Your task to perform on an android device: Open calendar and show me the first week of next month Image 0: 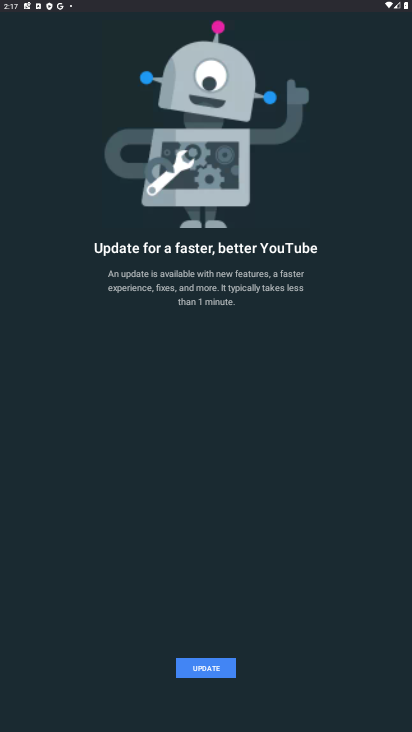
Step 0: press home button
Your task to perform on an android device: Open calendar and show me the first week of next month Image 1: 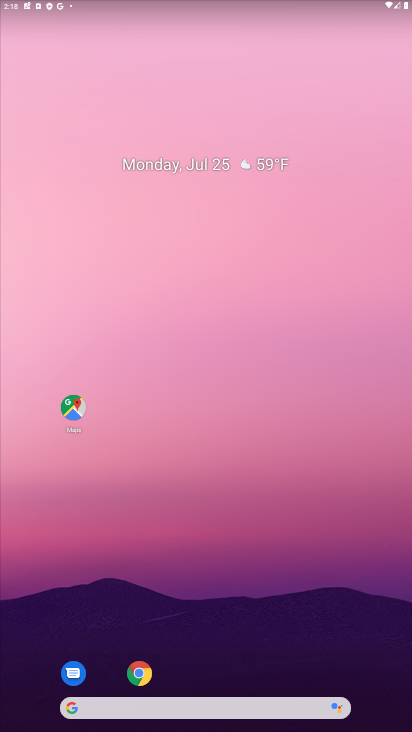
Step 1: click (172, 170)
Your task to perform on an android device: Open calendar and show me the first week of next month Image 2: 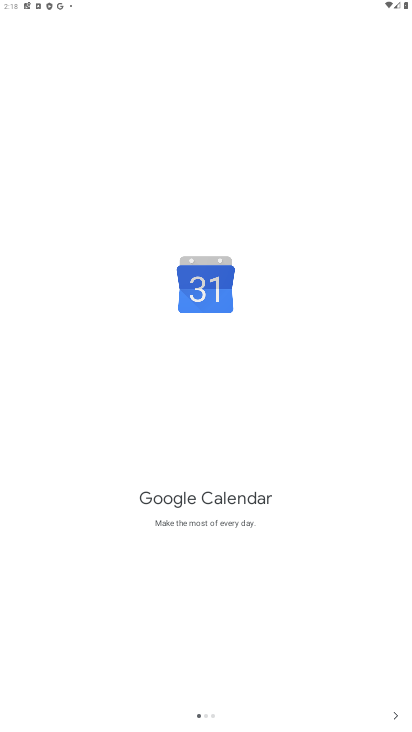
Step 2: click (394, 716)
Your task to perform on an android device: Open calendar and show me the first week of next month Image 3: 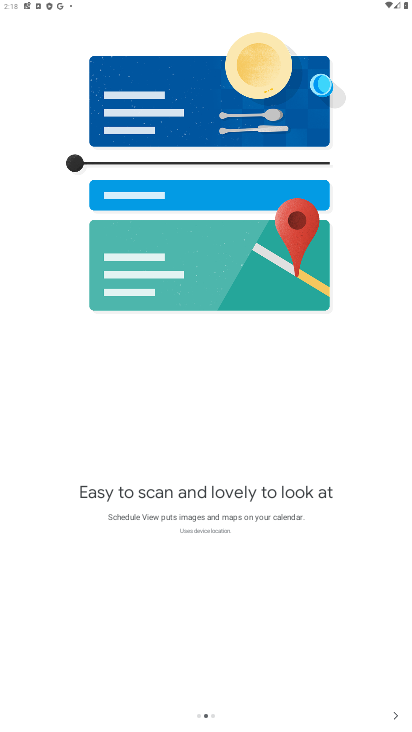
Step 3: click (394, 716)
Your task to perform on an android device: Open calendar and show me the first week of next month Image 4: 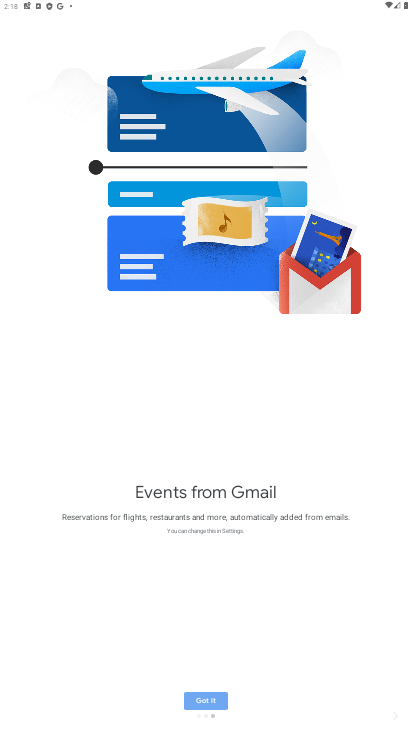
Step 4: click (394, 716)
Your task to perform on an android device: Open calendar and show me the first week of next month Image 5: 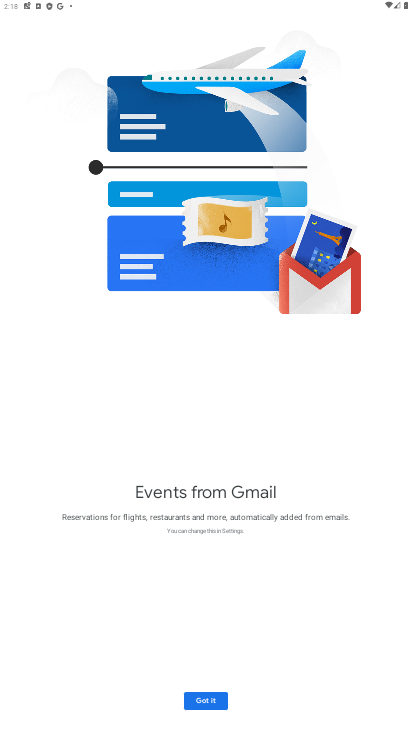
Step 5: click (191, 708)
Your task to perform on an android device: Open calendar and show me the first week of next month Image 6: 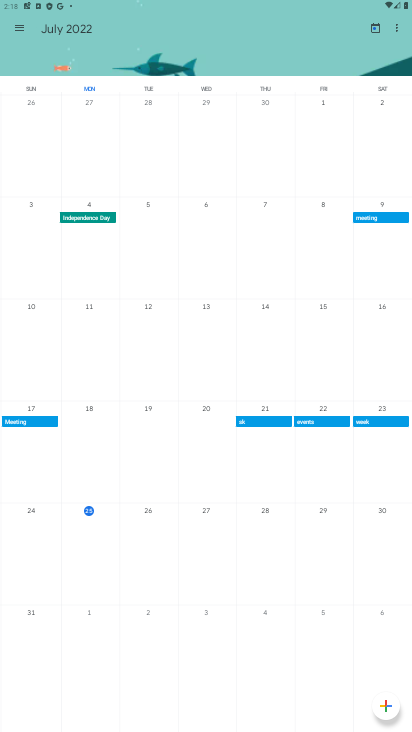
Step 6: click (79, 30)
Your task to perform on an android device: Open calendar and show me the first week of next month Image 7: 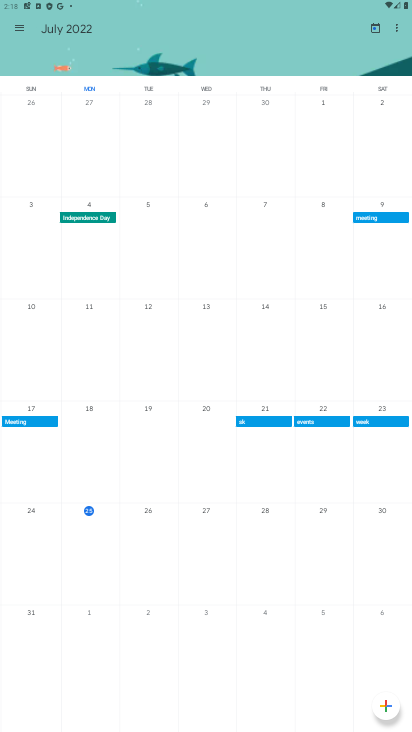
Step 7: click (24, 32)
Your task to perform on an android device: Open calendar and show me the first week of next month Image 8: 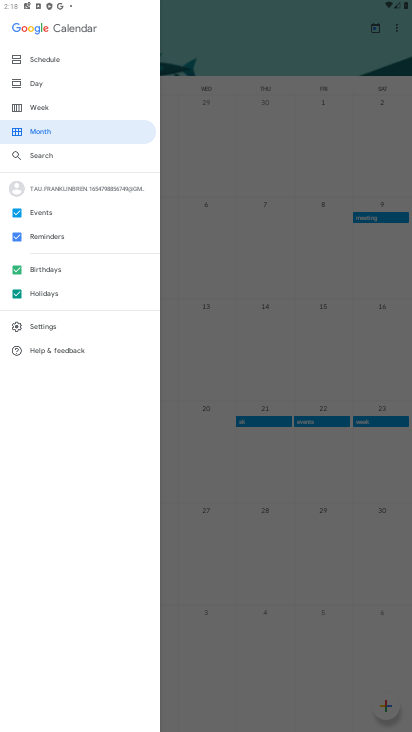
Step 8: click (56, 110)
Your task to perform on an android device: Open calendar and show me the first week of next month Image 9: 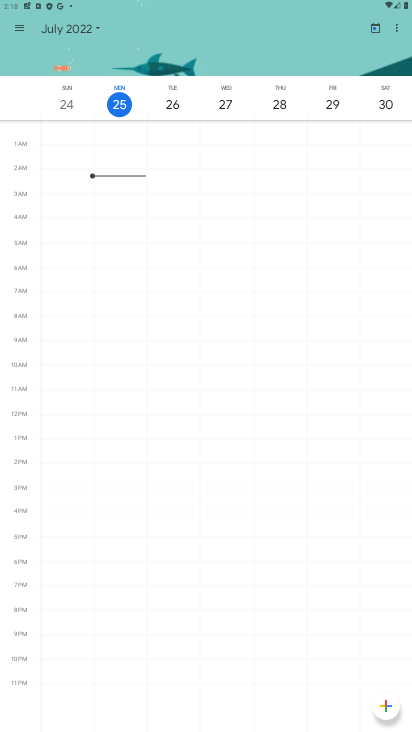
Step 9: click (82, 31)
Your task to perform on an android device: Open calendar and show me the first week of next month Image 10: 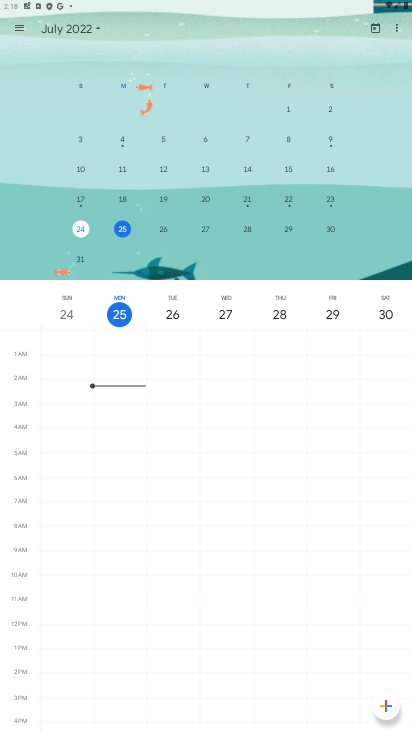
Step 10: task complete